Your task to perform on an android device: turn on wifi Image 0: 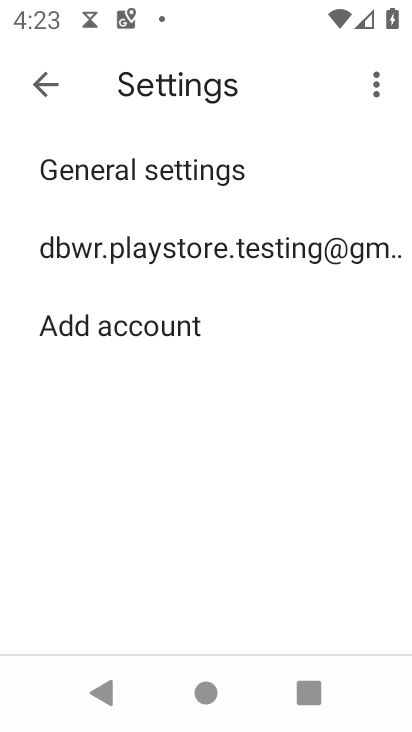
Step 0: press home button
Your task to perform on an android device: turn on wifi Image 1: 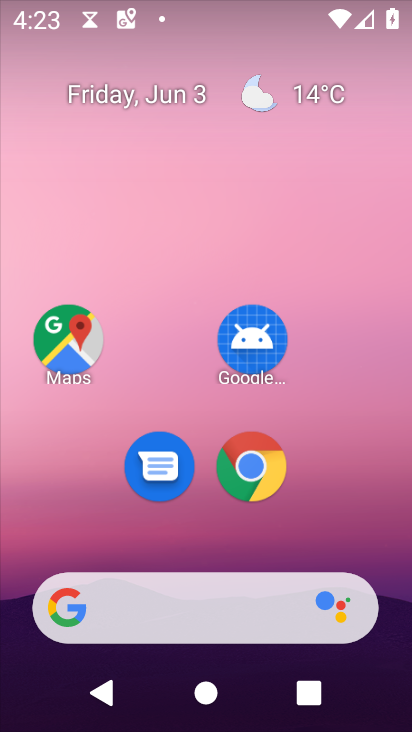
Step 1: drag from (384, 566) to (331, 135)
Your task to perform on an android device: turn on wifi Image 2: 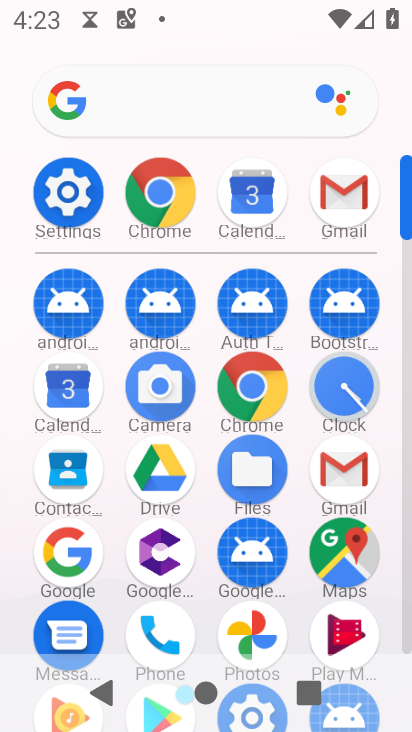
Step 2: click (70, 194)
Your task to perform on an android device: turn on wifi Image 3: 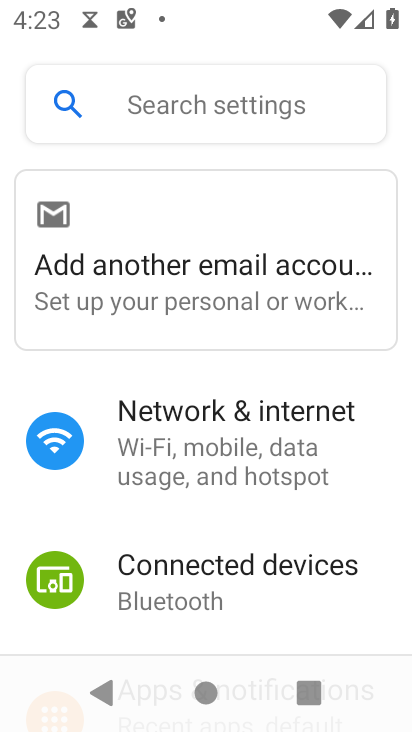
Step 3: click (141, 289)
Your task to perform on an android device: turn on wifi Image 4: 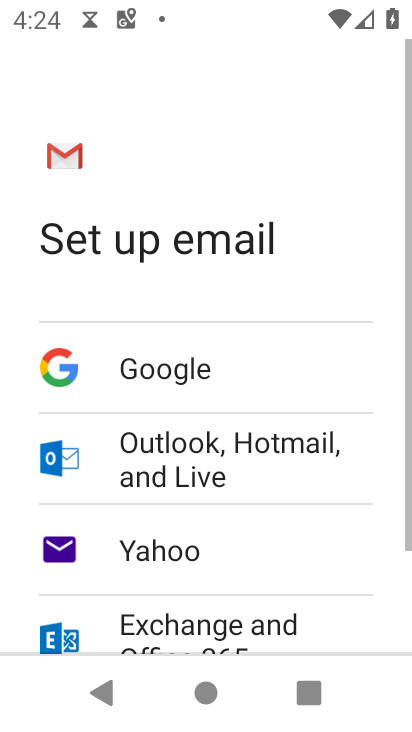
Step 4: press back button
Your task to perform on an android device: turn on wifi Image 5: 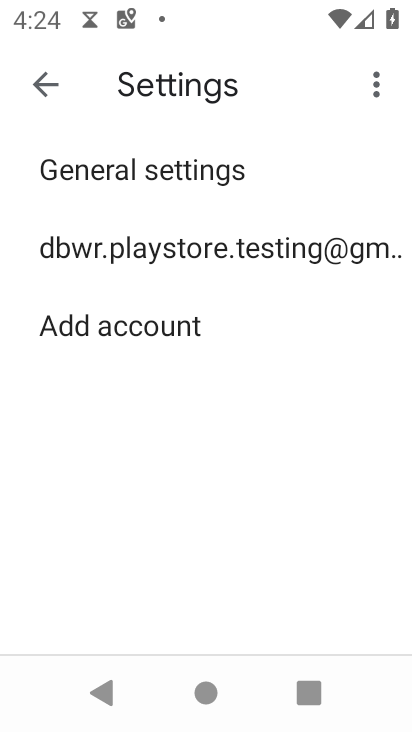
Step 5: press back button
Your task to perform on an android device: turn on wifi Image 6: 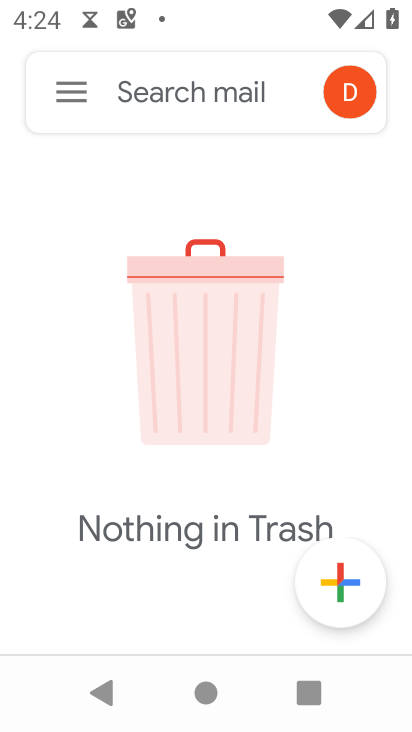
Step 6: press back button
Your task to perform on an android device: turn on wifi Image 7: 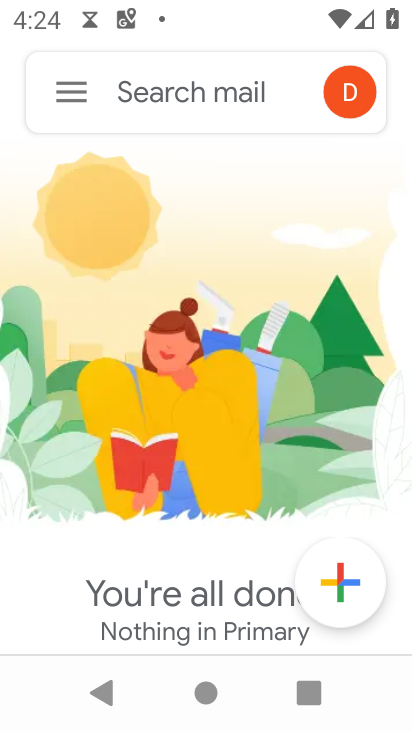
Step 7: press home button
Your task to perform on an android device: turn on wifi Image 8: 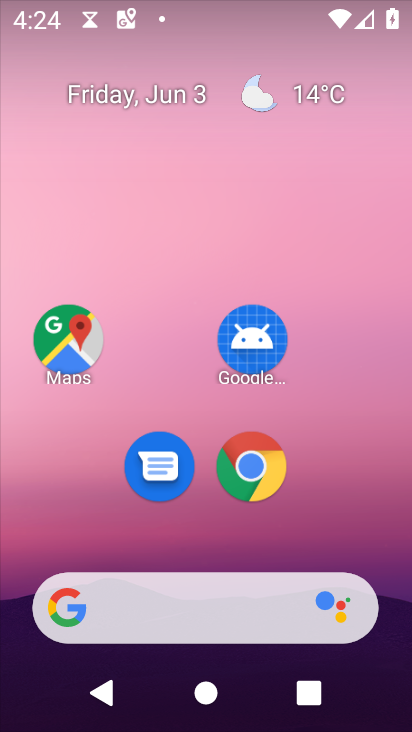
Step 8: drag from (384, 477) to (377, 423)
Your task to perform on an android device: turn on wifi Image 9: 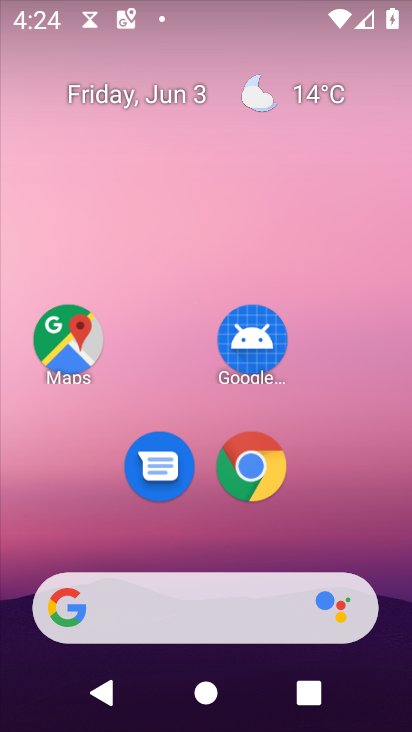
Step 9: drag from (357, 504) to (315, 144)
Your task to perform on an android device: turn on wifi Image 10: 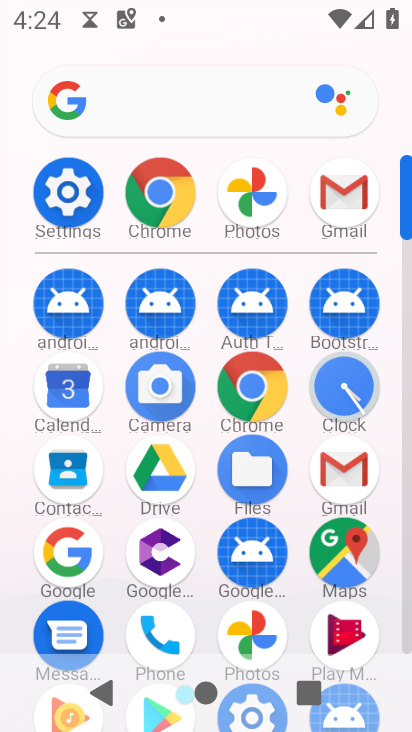
Step 10: click (76, 186)
Your task to perform on an android device: turn on wifi Image 11: 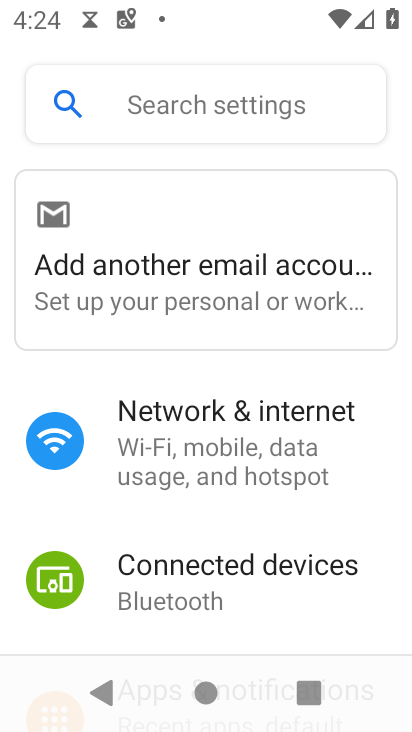
Step 11: click (149, 443)
Your task to perform on an android device: turn on wifi Image 12: 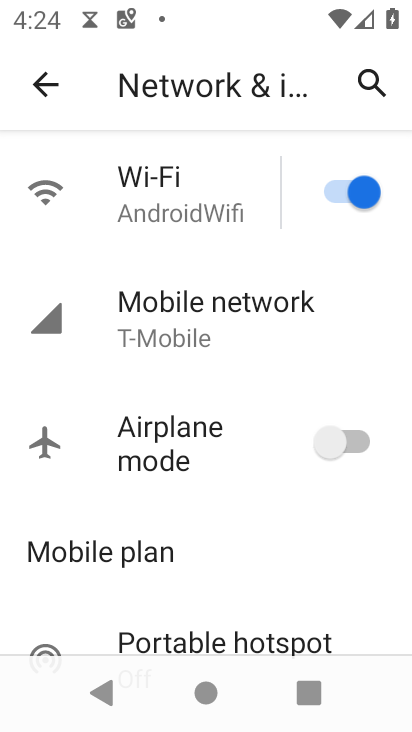
Step 12: task complete